Your task to perform on an android device: read, delete, or share a saved page in the chrome app Image 0: 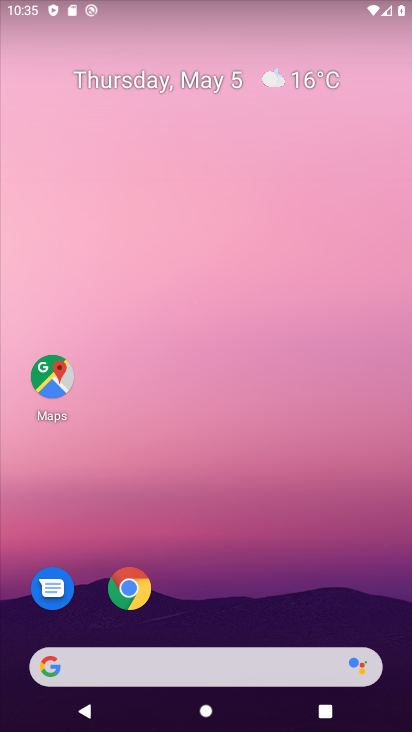
Step 0: drag from (237, 624) to (204, 155)
Your task to perform on an android device: read, delete, or share a saved page in the chrome app Image 1: 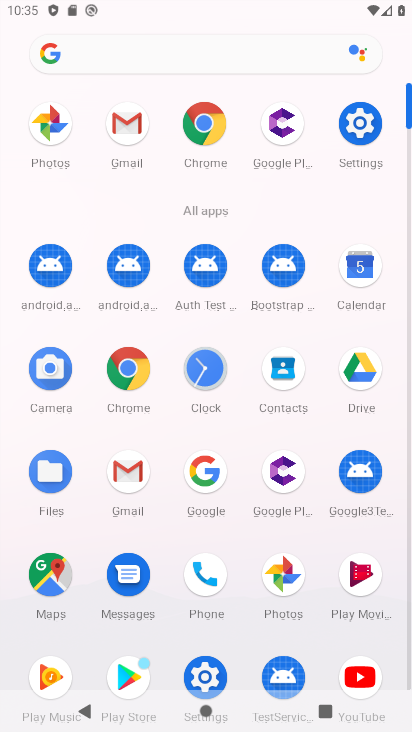
Step 1: click (197, 129)
Your task to perform on an android device: read, delete, or share a saved page in the chrome app Image 2: 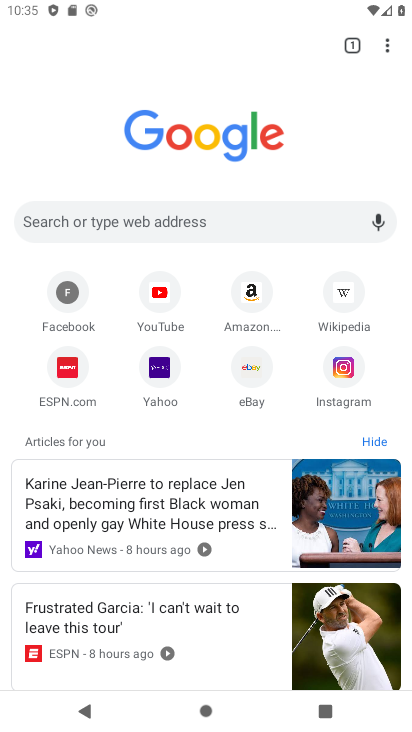
Step 2: drag from (389, 65) to (295, 302)
Your task to perform on an android device: read, delete, or share a saved page in the chrome app Image 3: 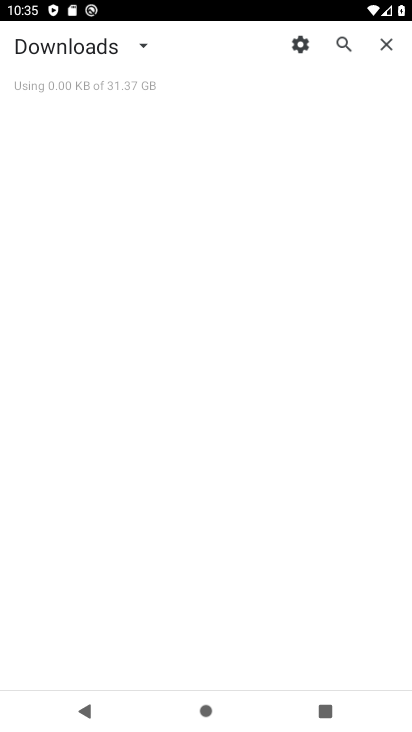
Step 3: click (129, 39)
Your task to perform on an android device: read, delete, or share a saved page in the chrome app Image 4: 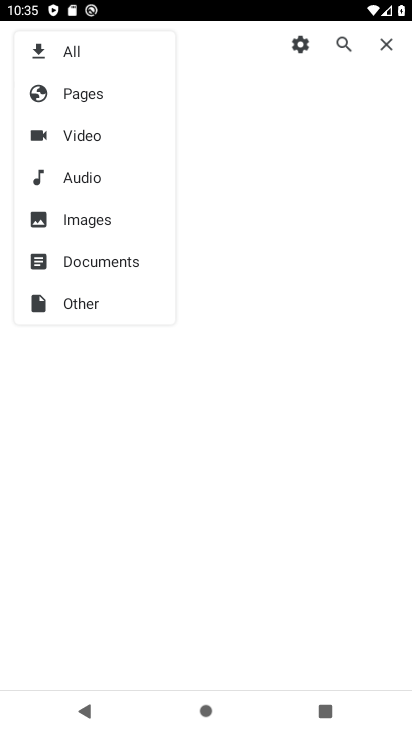
Step 4: click (103, 103)
Your task to perform on an android device: read, delete, or share a saved page in the chrome app Image 5: 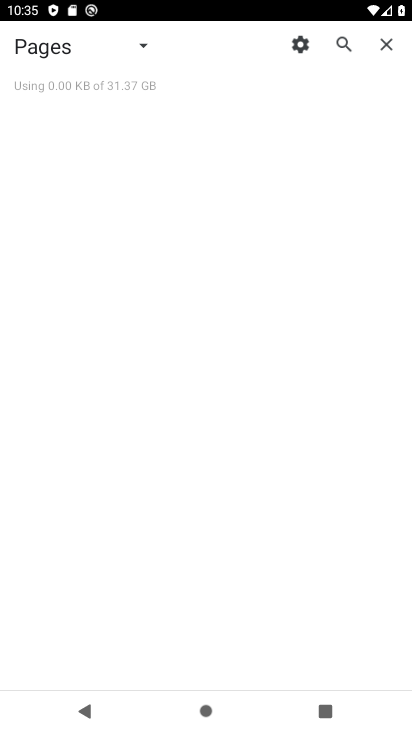
Step 5: task complete